Your task to perform on an android device: turn on the 24-hour format for clock Image 0: 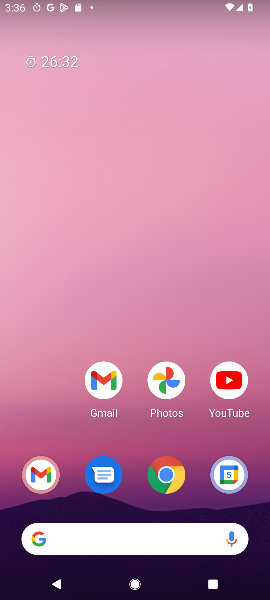
Step 0: drag from (65, 441) to (64, 230)
Your task to perform on an android device: turn on the 24-hour format for clock Image 1: 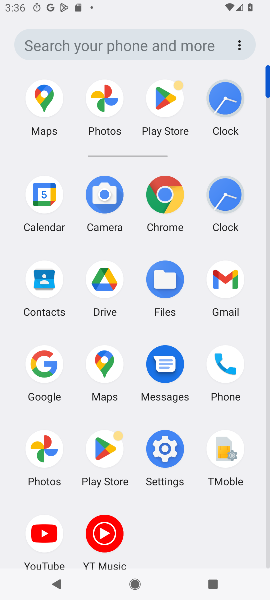
Step 1: click (224, 198)
Your task to perform on an android device: turn on the 24-hour format for clock Image 2: 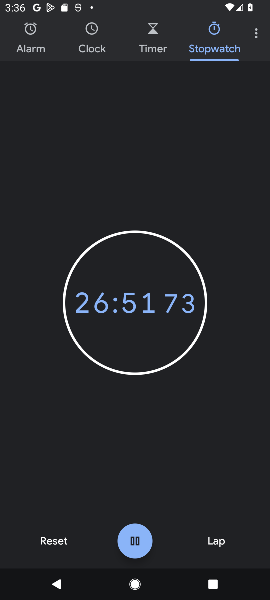
Step 2: click (254, 34)
Your task to perform on an android device: turn on the 24-hour format for clock Image 3: 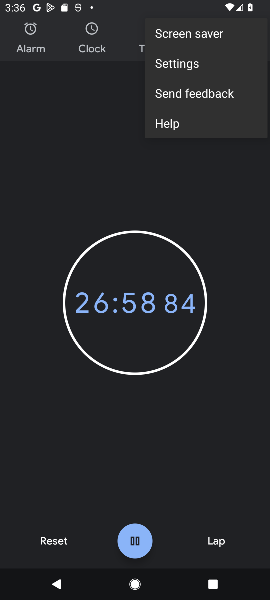
Step 3: click (196, 65)
Your task to perform on an android device: turn on the 24-hour format for clock Image 4: 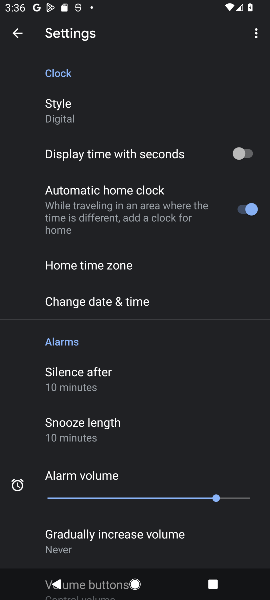
Step 4: click (158, 303)
Your task to perform on an android device: turn on the 24-hour format for clock Image 5: 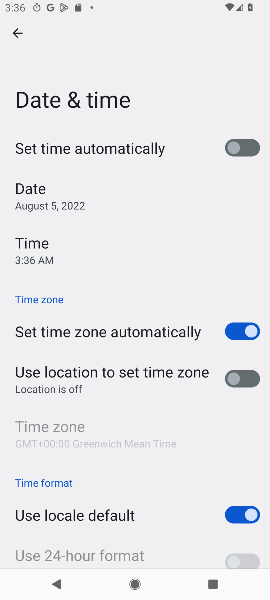
Step 5: drag from (165, 485) to (162, 367)
Your task to perform on an android device: turn on the 24-hour format for clock Image 6: 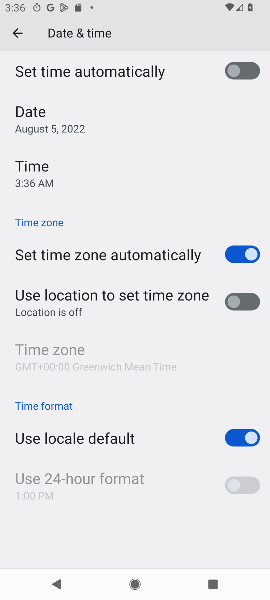
Step 6: click (242, 439)
Your task to perform on an android device: turn on the 24-hour format for clock Image 7: 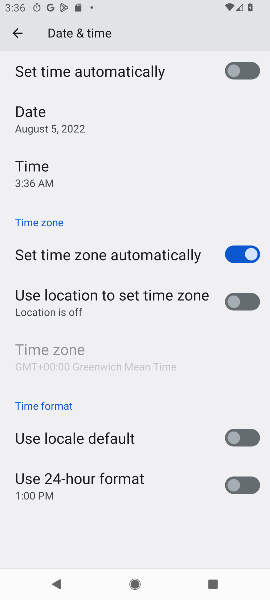
Step 7: click (236, 481)
Your task to perform on an android device: turn on the 24-hour format for clock Image 8: 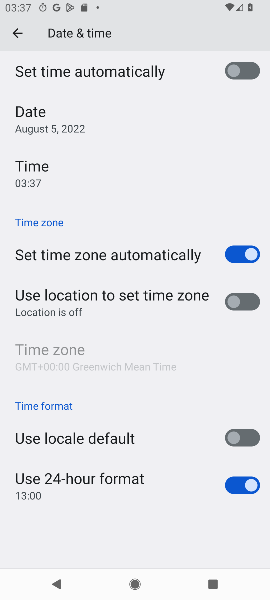
Step 8: task complete